Your task to perform on an android device: set an alarm Image 0: 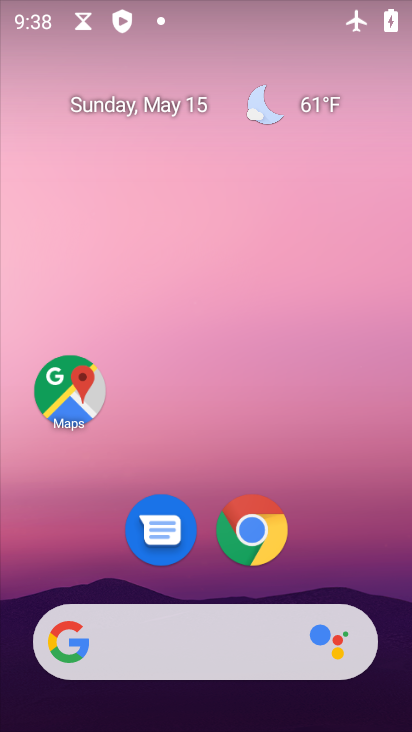
Step 0: drag from (220, 719) to (223, 48)
Your task to perform on an android device: set an alarm Image 1: 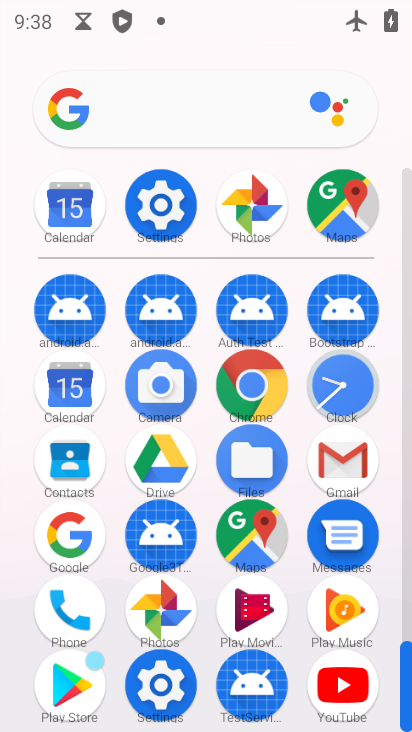
Step 1: click (341, 386)
Your task to perform on an android device: set an alarm Image 2: 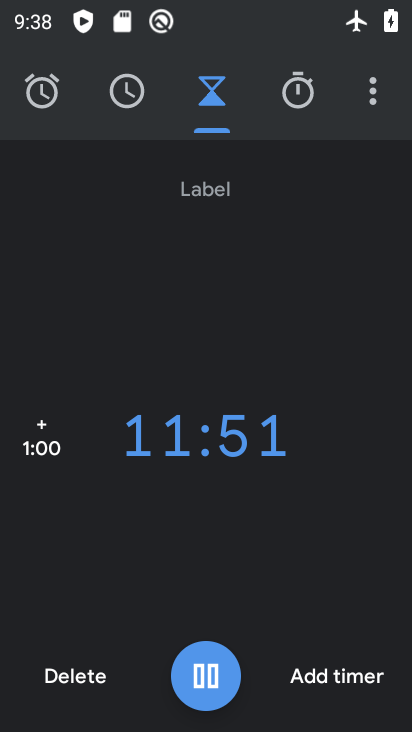
Step 2: click (43, 88)
Your task to perform on an android device: set an alarm Image 3: 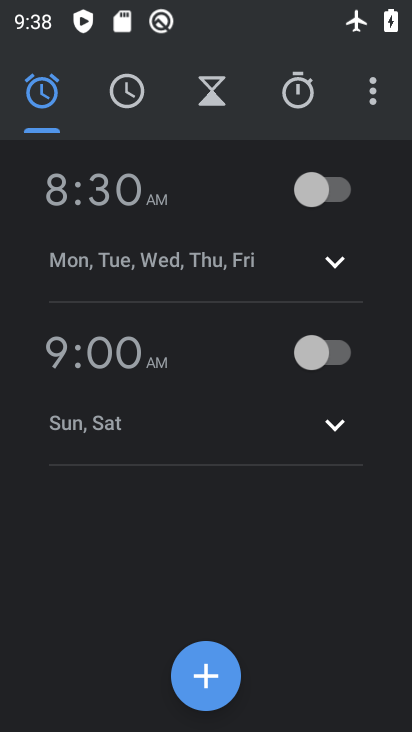
Step 3: click (201, 673)
Your task to perform on an android device: set an alarm Image 4: 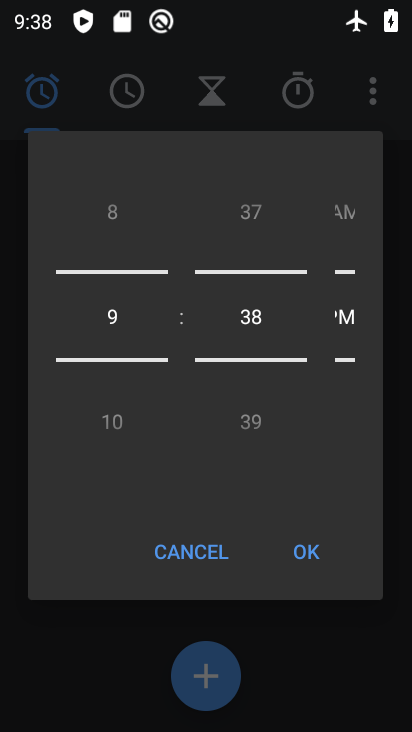
Step 4: drag from (121, 423) to (120, 64)
Your task to perform on an android device: set an alarm Image 5: 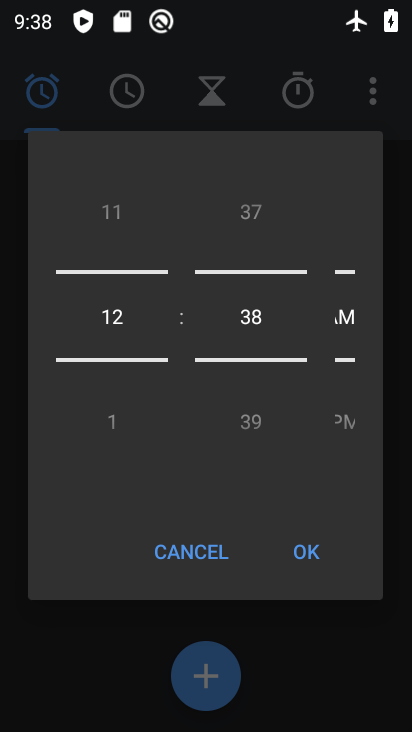
Step 5: drag from (258, 209) to (248, 449)
Your task to perform on an android device: set an alarm Image 6: 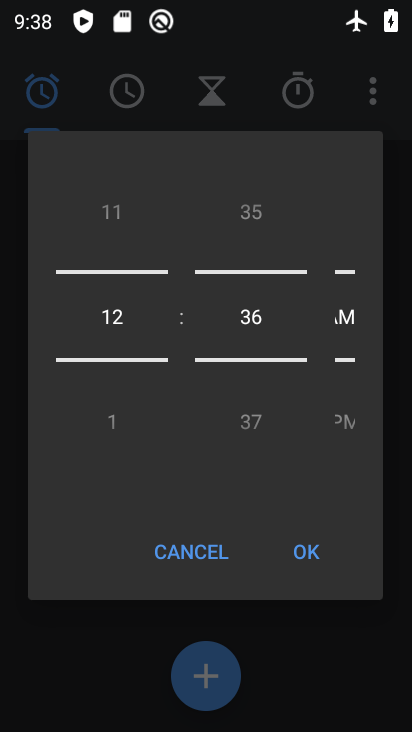
Step 6: drag from (345, 429) to (348, 222)
Your task to perform on an android device: set an alarm Image 7: 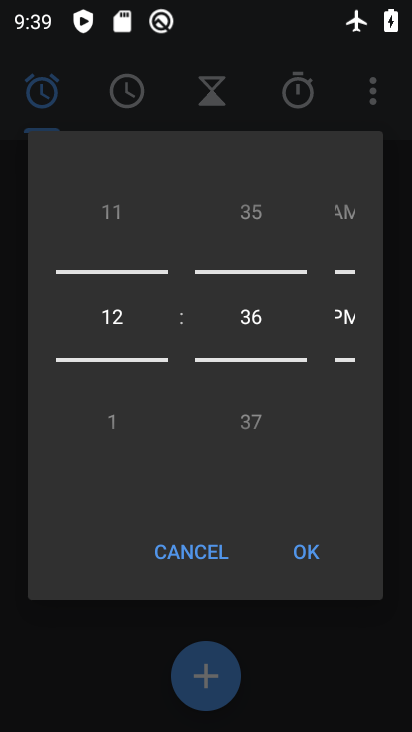
Step 7: click (309, 550)
Your task to perform on an android device: set an alarm Image 8: 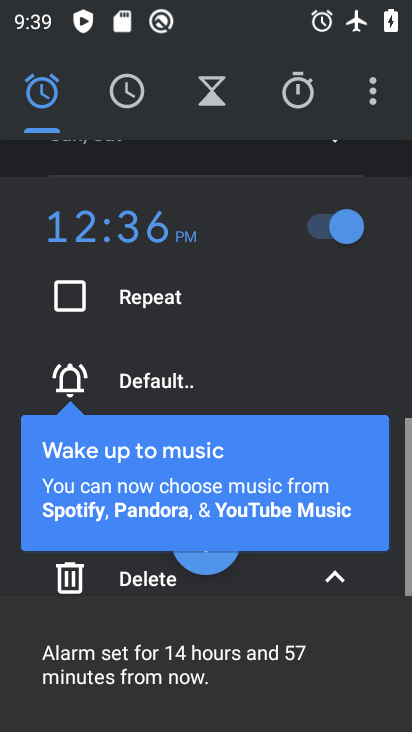
Step 8: task complete